Your task to perform on an android device: Open internet settings Image 0: 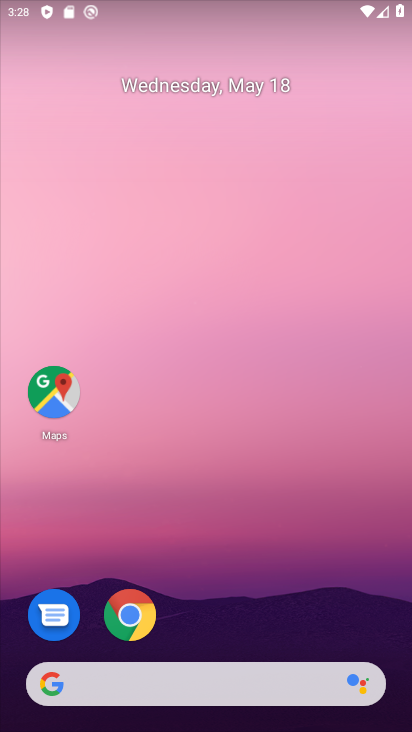
Step 0: drag from (253, 593) to (291, 188)
Your task to perform on an android device: Open internet settings Image 1: 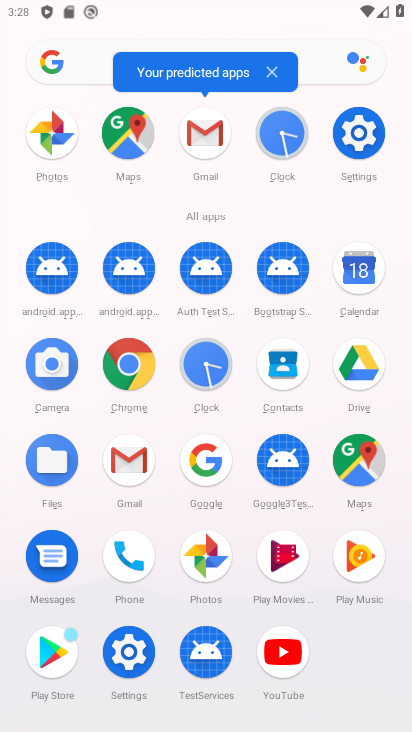
Step 1: click (355, 146)
Your task to perform on an android device: Open internet settings Image 2: 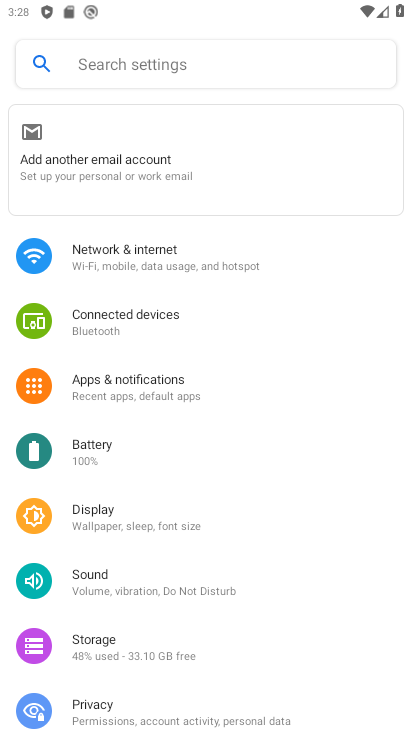
Step 2: click (135, 252)
Your task to perform on an android device: Open internet settings Image 3: 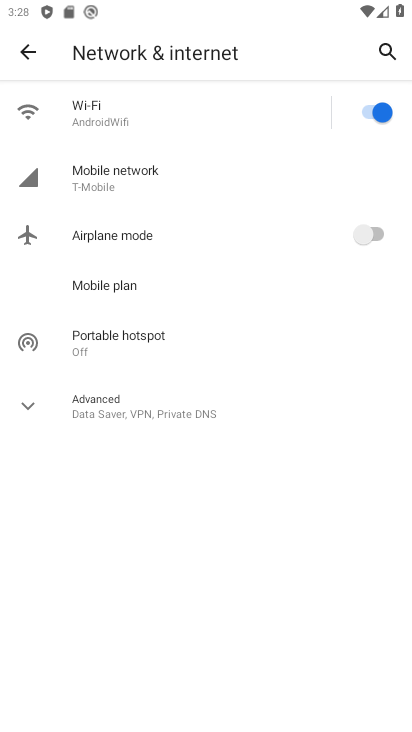
Step 3: task complete